Your task to perform on an android device: find snoozed emails in the gmail app Image 0: 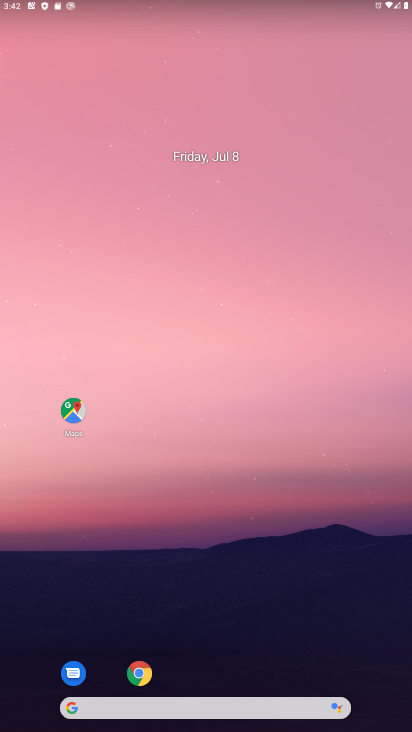
Step 0: drag from (194, 668) to (164, 312)
Your task to perform on an android device: find snoozed emails in the gmail app Image 1: 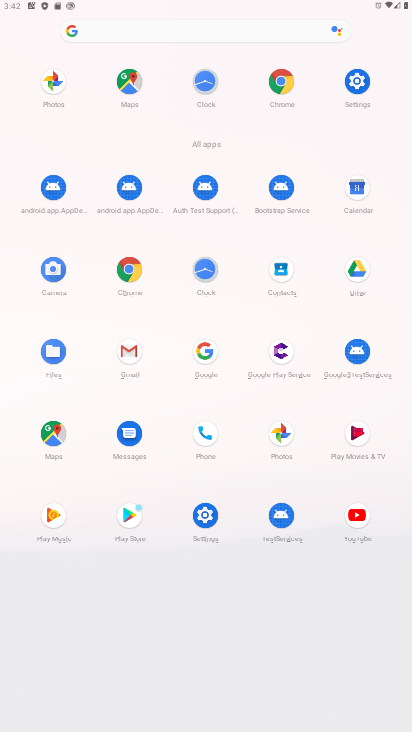
Step 1: click (133, 354)
Your task to perform on an android device: find snoozed emails in the gmail app Image 2: 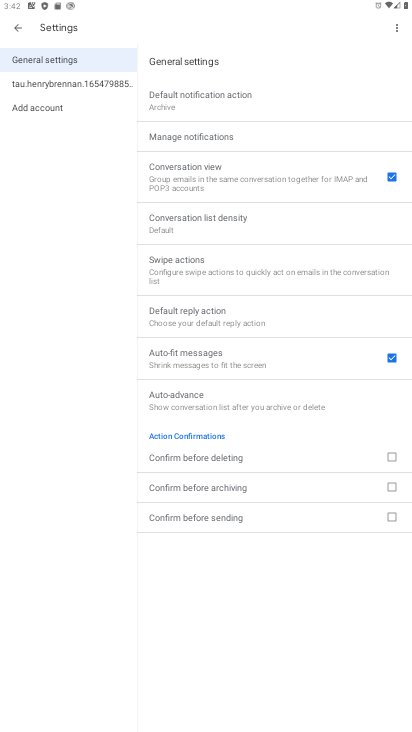
Step 2: press back button
Your task to perform on an android device: find snoozed emails in the gmail app Image 3: 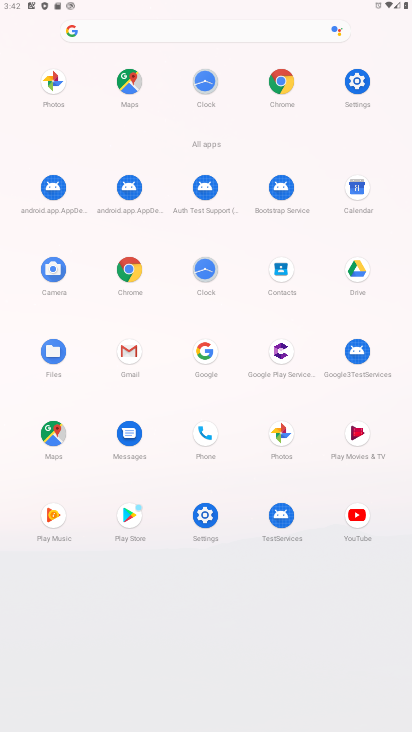
Step 3: click (135, 342)
Your task to perform on an android device: find snoozed emails in the gmail app Image 4: 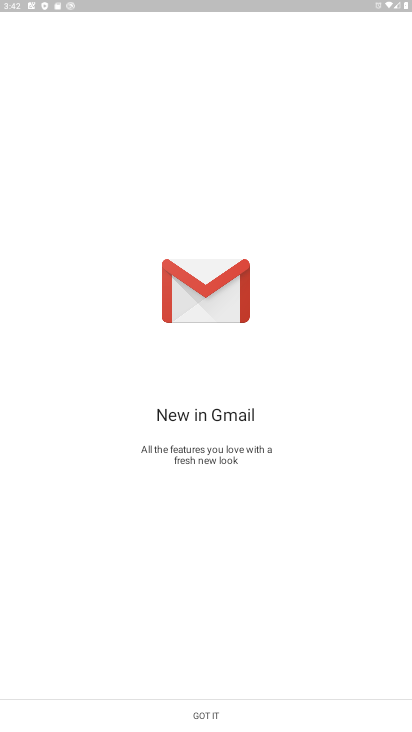
Step 4: click (212, 724)
Your task to perform on an android device: find snoozed emails in the gmail app Image 5: 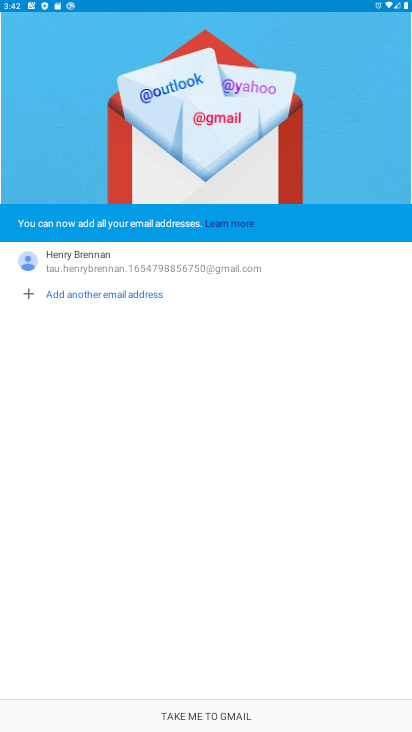
Step 5: click (212, 724)
Your task to perform on an android device: find snoozed emails in the gmail app Image 6: 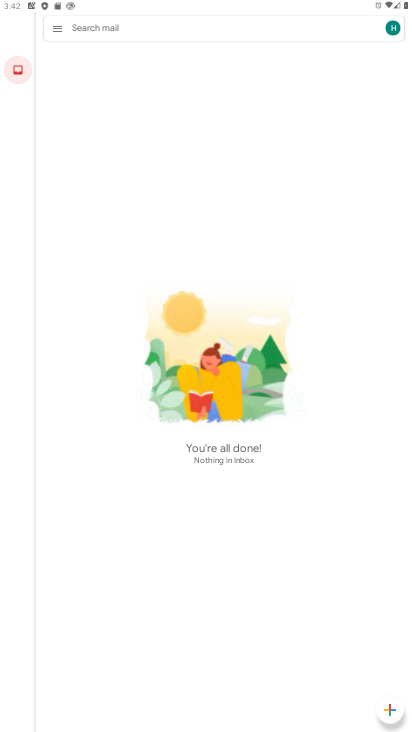
Step 6: click (55, 30)
Your task to perform on an android device: find snoozed emails in the gmail app Image 7: 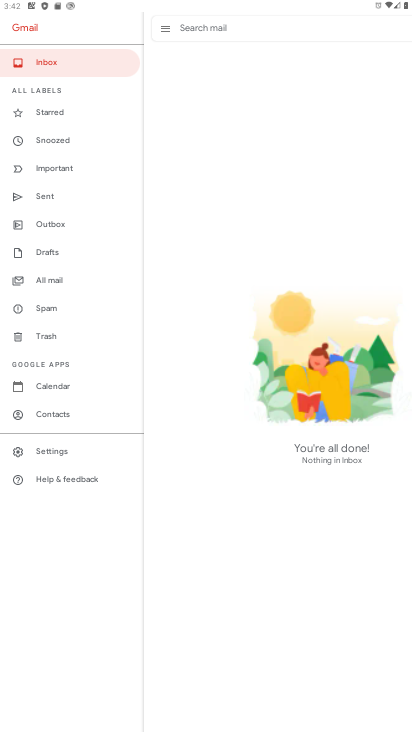
Step 7: click (74, 139)
Your task to perform on an android device: find snoozed emails in the gmail app Image 8: 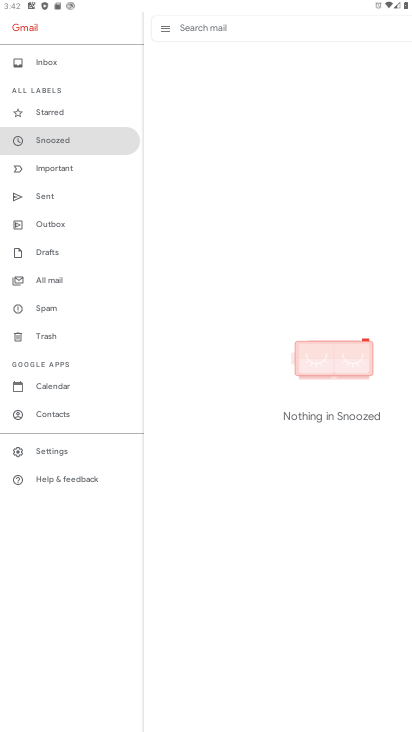
Step 8: task complete